Your task to perform on an android device: install app "Truecaller" Image 0: 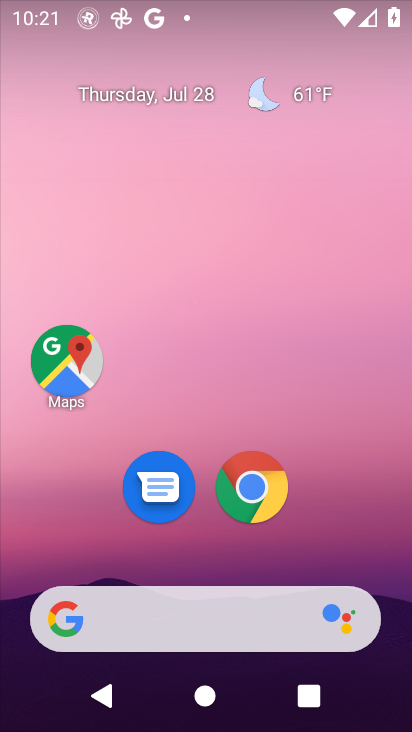
Step 0: drag from (215, 465) to (178, 175)
Your task to perform on an android device: install app "Truecaller" Image 1: 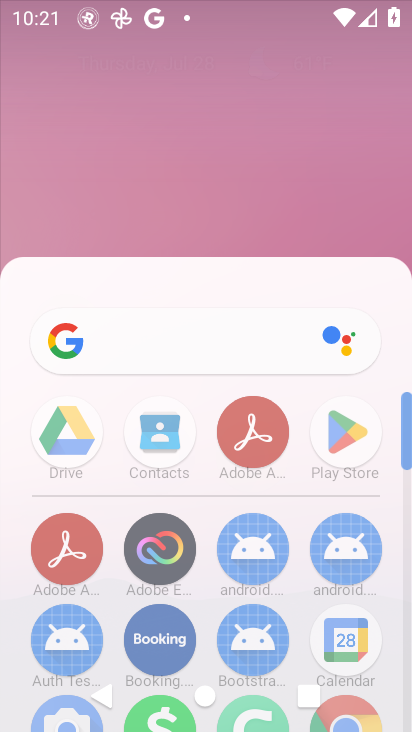
Step 1: drag from (265, 548) to (217, 129)
Your task to perform on an android device: install app "Truecaller" Image 2: 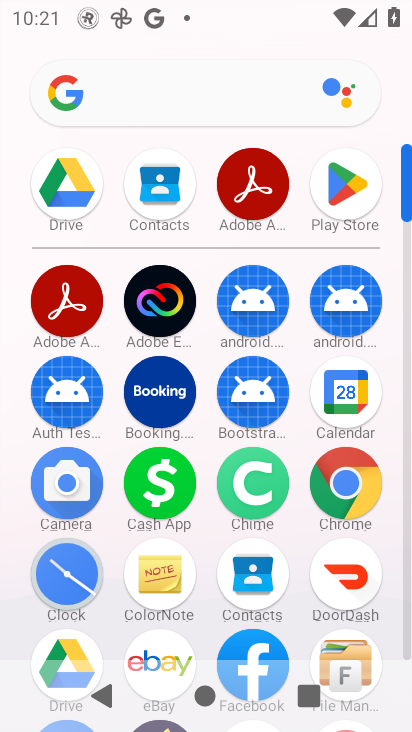
Step 2: drag from (272, 540) to (226, 192)
Your task to perform on an android device: install app "Truecaller" Image 3: 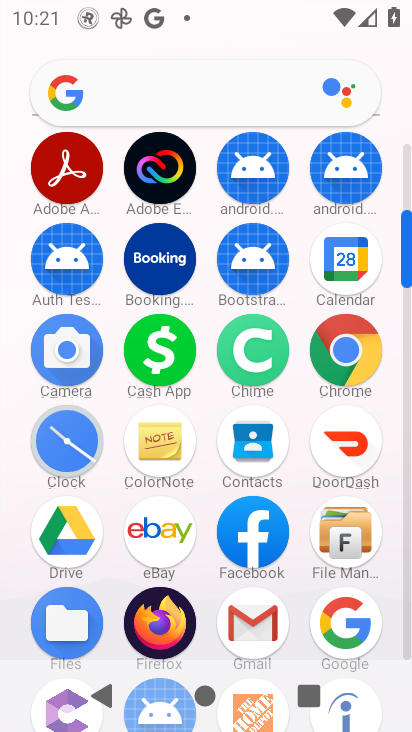
Step 3: drag from (287, 210) to (321, 522)
Your task to perform on an android device: install app "Truecaller" Image 4: 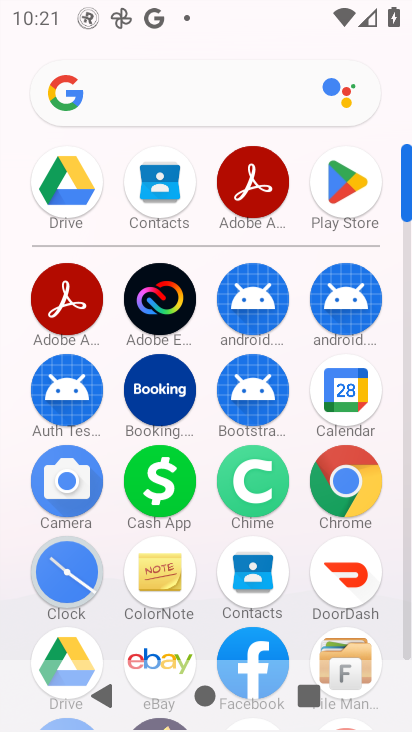
Step 4: drag from (322, 313) to (322, 530)
Your task to perform on an android device: install app "Truecaller" Image 5: 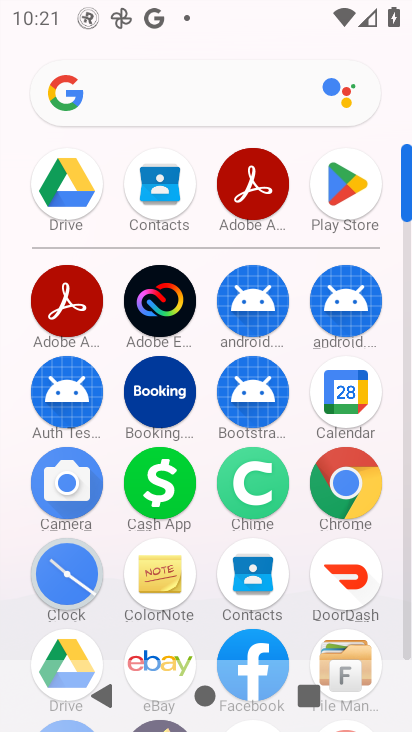
Step 5: click (341, 185)
Your task to perform on an android device: install app "Truecaller" Image 6: 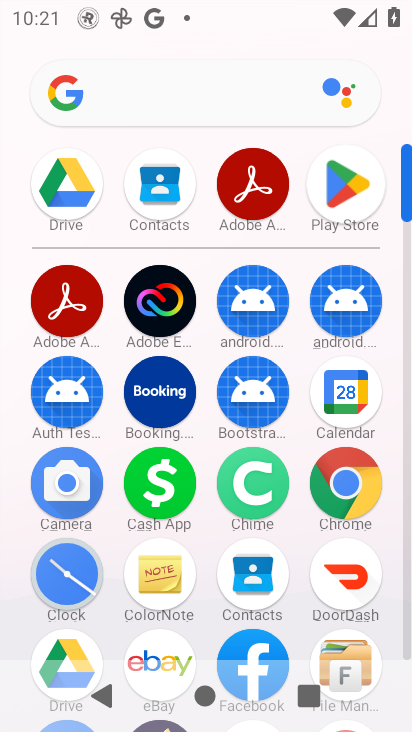
Step 6: click (341, 185)
Your task to perform on an android device: install app "Truecaller" Image 7: 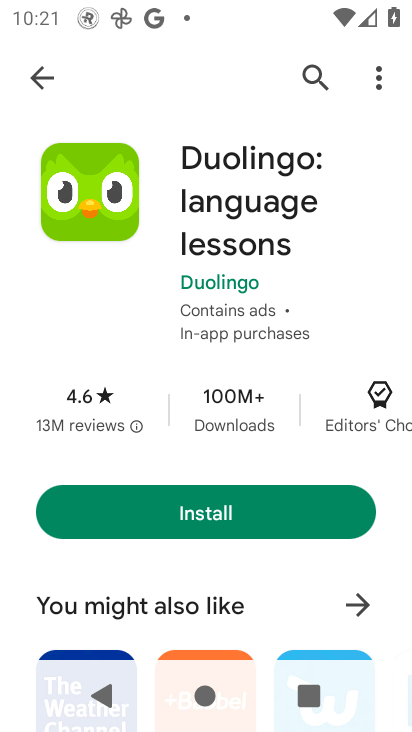
Step 7: click (342, 184)
Your task to perform on an android device: install app "Truecaller" Image 8: 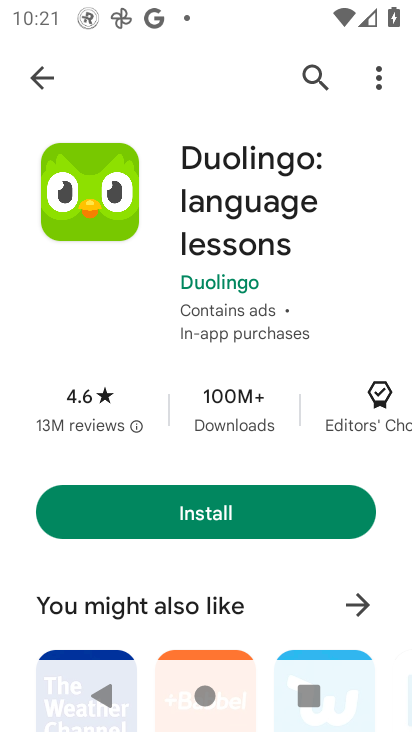
Step 8: click (47, 69)
Your task to perform on an android device: install app "Truecaller" Image 9: 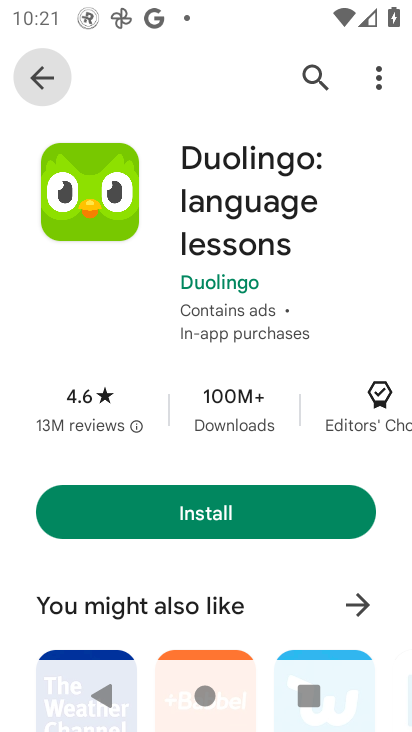
Step 9: click (48, 69)
Your task to perform on an android device: install app "Truecaller" Image 10: 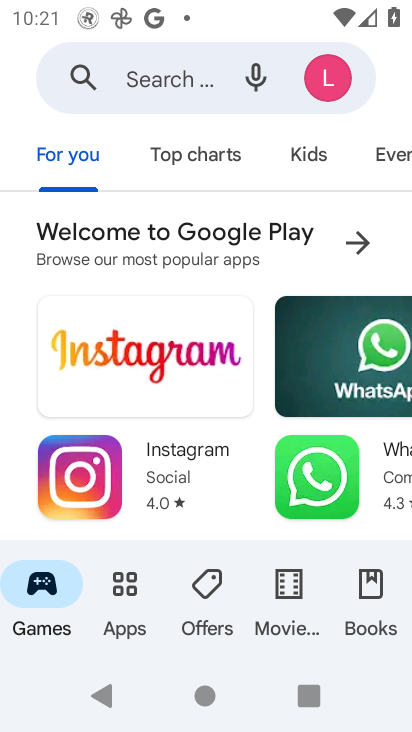
Step 10: click (129, 77)
Your task to perform on an android device: install app "Truecaller" Image 11: 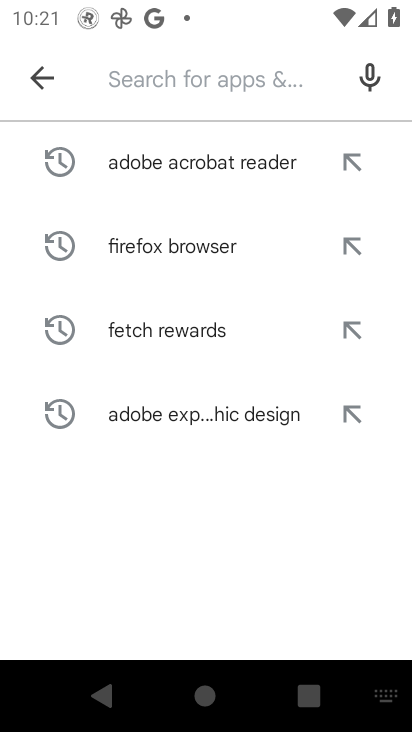
Step 11: type "Truecaller"
Your task to perform on an android device: install app "Truecaller" Image 12: 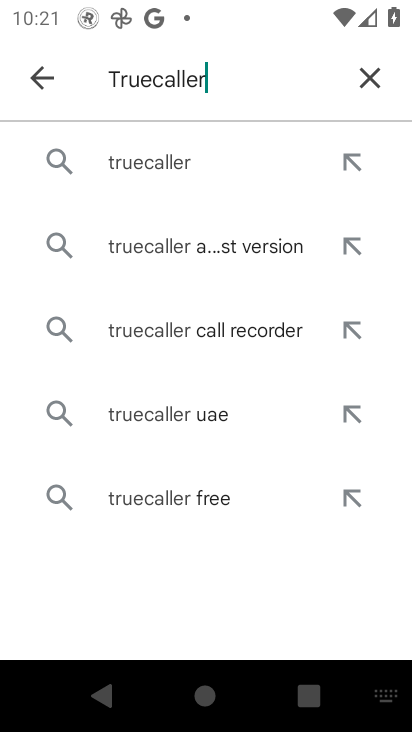
Step 12: click (159, 154)
Your task to perform on an android device: install app "Truecaller" Image 13: 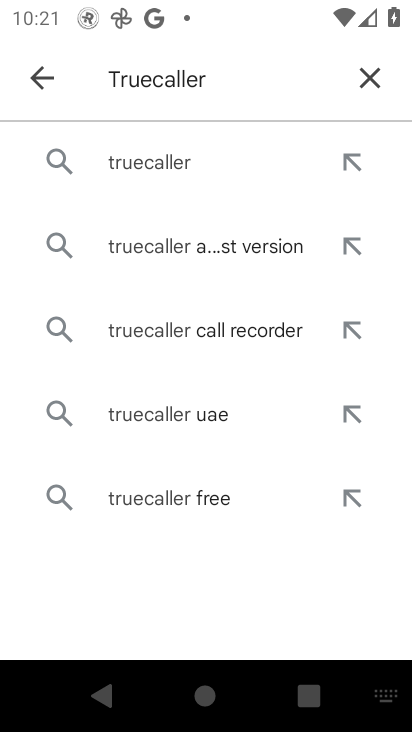
Step 13: click (159, 154)
Your task to perform on an android device: install app "Truecaller" Image 14: 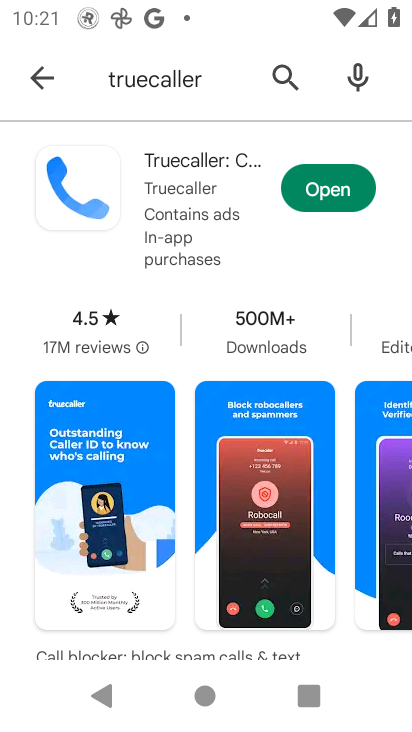
Step 14: click (343, 182)
Your task to perform on an android device: install app "Truecaller" Image 15: 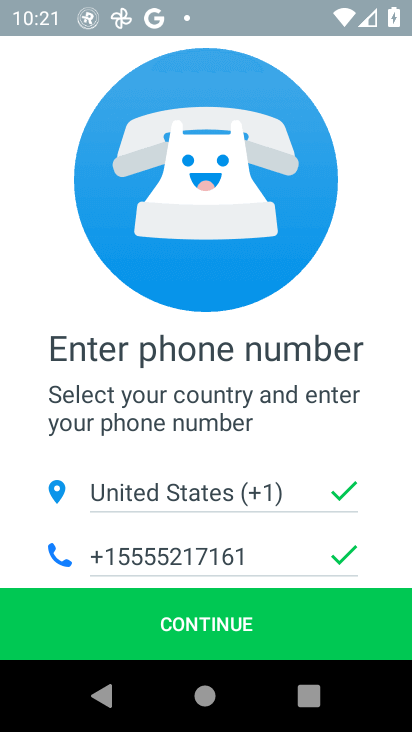
Step 15: drag from (260, 523) to (215, 268)
Your task to perform on an android device: install app "Truecaller" Image 16: 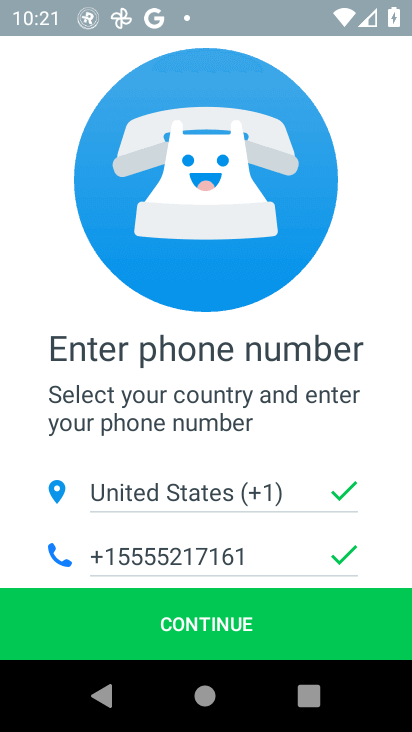
Step 16: drag from (263, 361) to (263, 177)
Your task to perform on an android device: install app "Truecaller" Image 17: 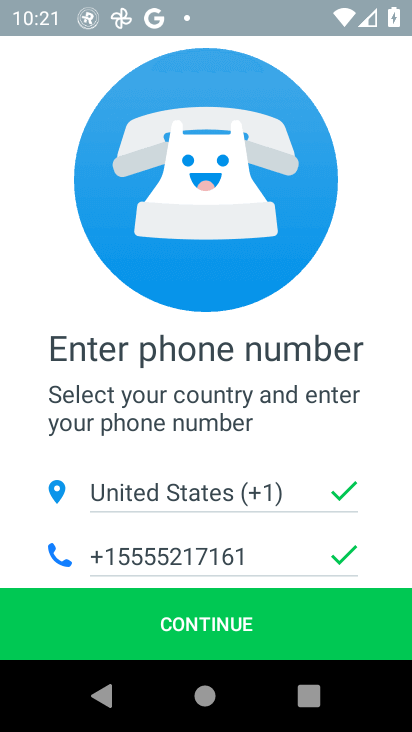
Step 17: drag from (243, 477) to (221, 235)
Your task to perform on an android device: install app "Truecaller" Image 18: 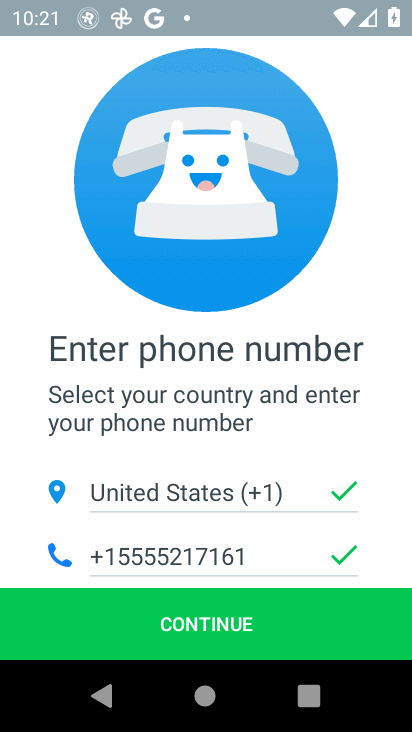
Step 18: drag from (264, 353) to (256, 259)
Your task to perform on an android device: install app "Truecaller" Image 19: 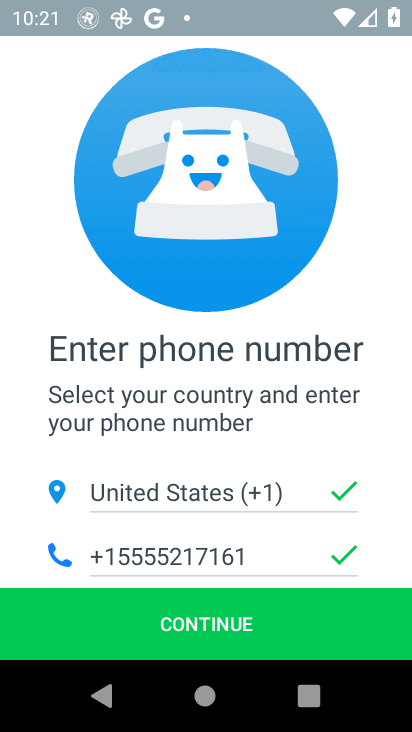
Step 19: click (233, 612)
Your task to perform on an android device: install app "Truecaller" Image 20: 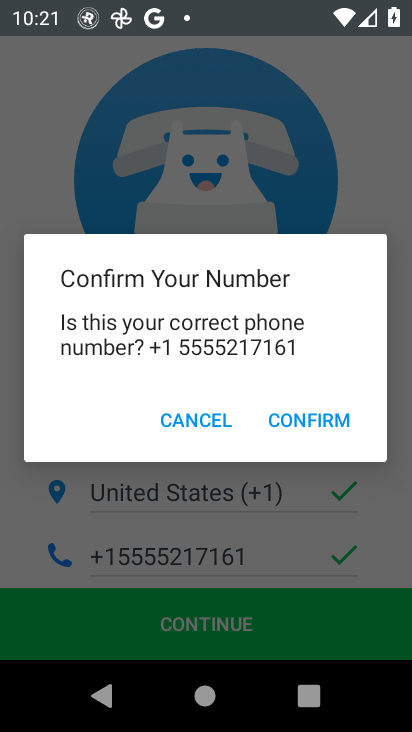
Step 20: click (200, 422)
Your task to perform on an android device: install app "Truecaller" Image 21: 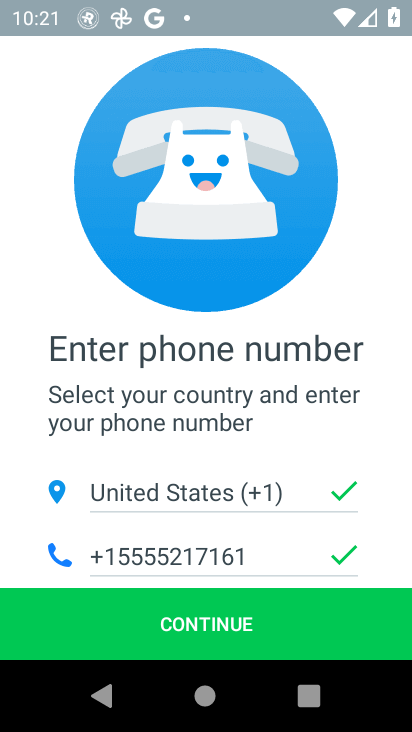
Step 21: drag from (223, 610) to (160, 71)
Your task to perform on an android device: install app "Truecaller" Image 22: 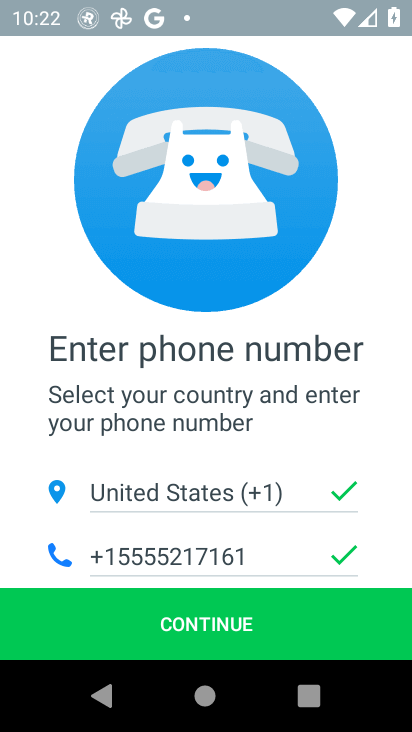
Step 22: click (246, 636)
Your task to perform on an android device: install app "Truecaller" Image 23: 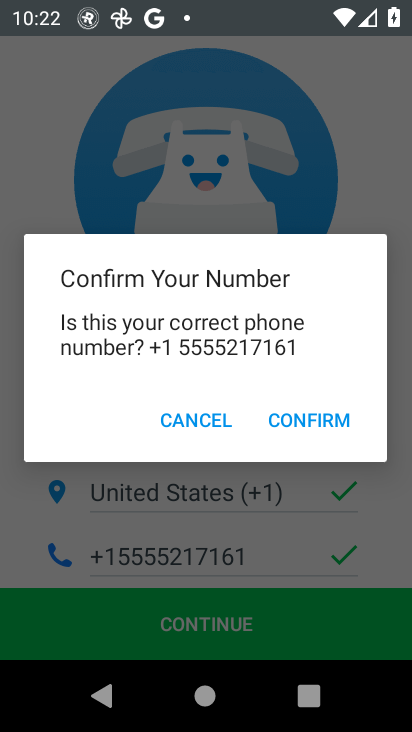
Step 23: task complete